Your task to perform on an android device: Open calendar and show me the second week of next month Image 0: 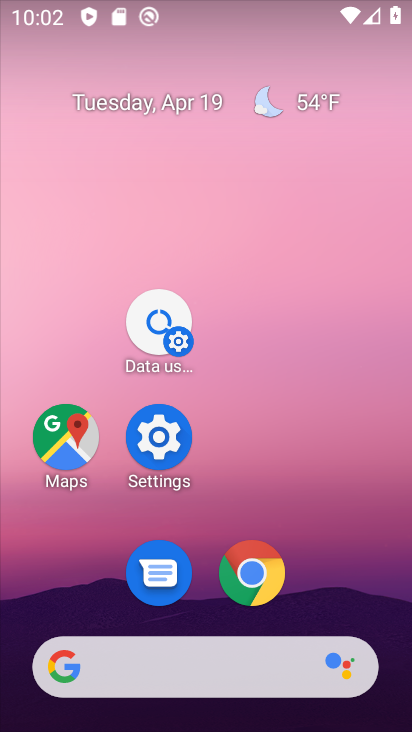
Step 0: drag from (361, 598) to (397, 14)
Your task to perform on an android device: Open calendar and show me the second week of next month Image 1: 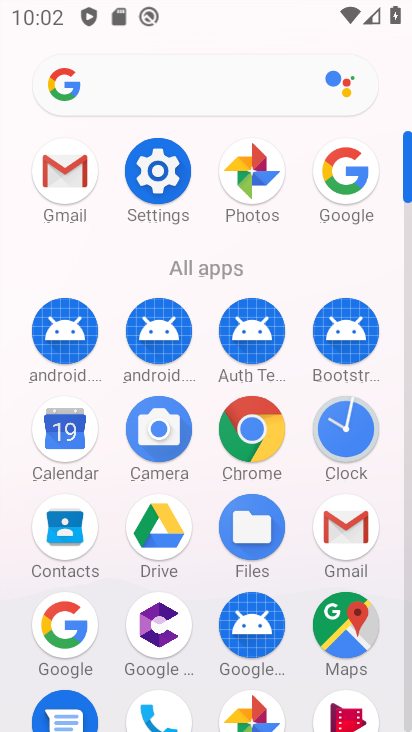
Step 1: click (63, 440)
Your task to perform on an android device: Open calendar and show me the second week of next month Image 2: 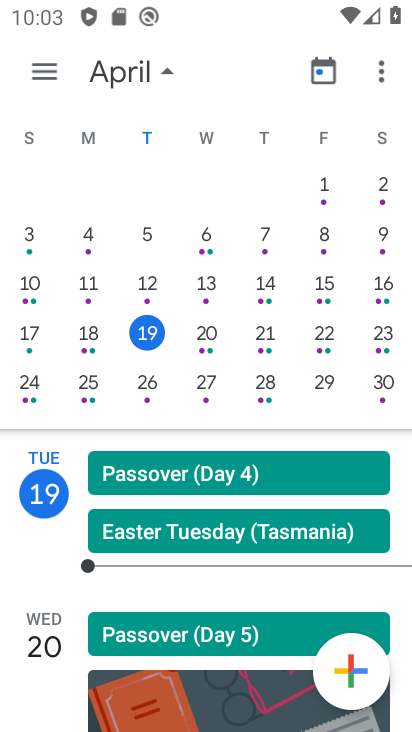
Step 2: drag from (300, 314) to (10, 385)
Your task to perform on an android device: Open calendar and show me the second week of next month Image 3: 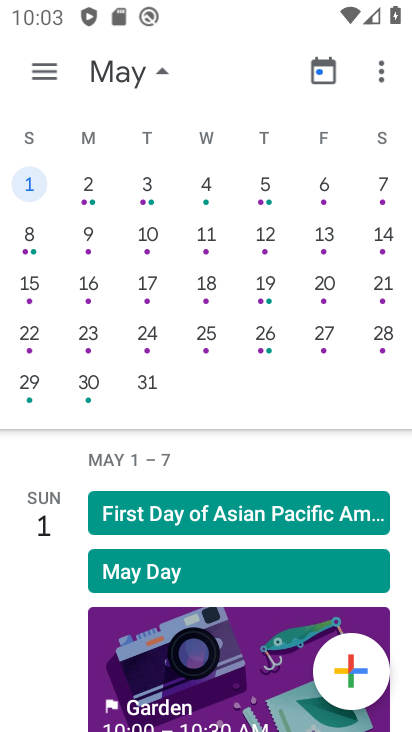
Step 3: click (36, 76)
Your task to perform on an android device: Open calendar and show me the second week of next month Image 4: 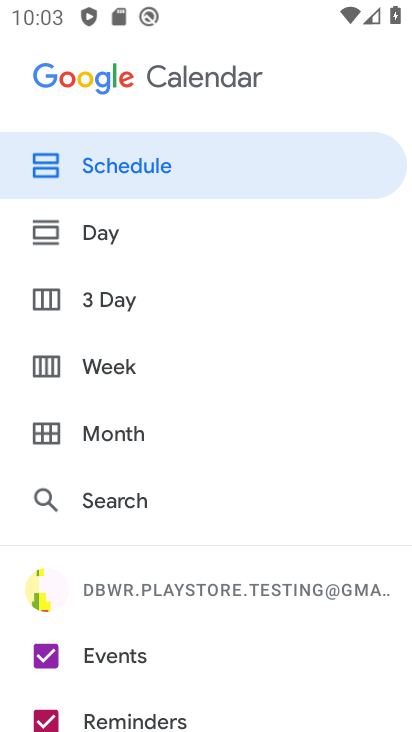
Step 4: click (93, 371)
Your task to perform on an android device: Open calendar and show me the second week of next month Image 5: 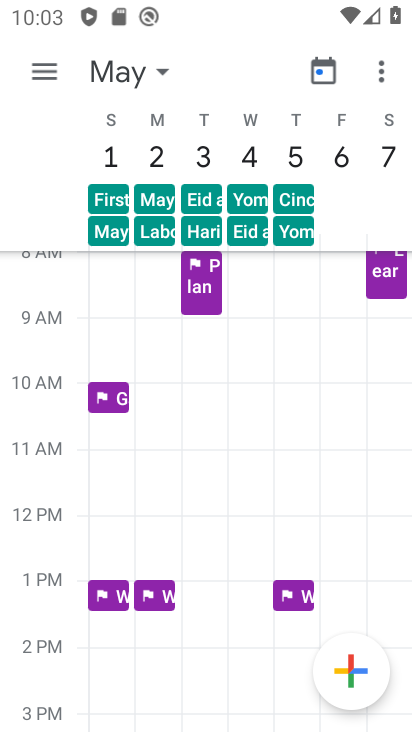
Step 5: task complete